Your task to perform on an android device: Go to display settings Image 0: 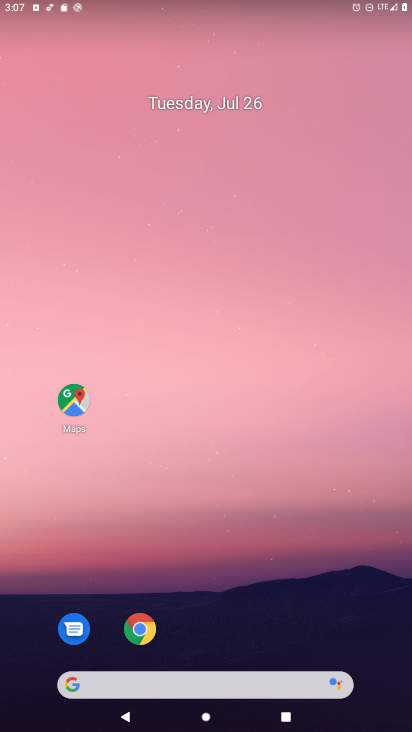
Step 0: drag from (378, 658) to (356, 253)
Your task to perform on an android device: Go to display settings Image 1: 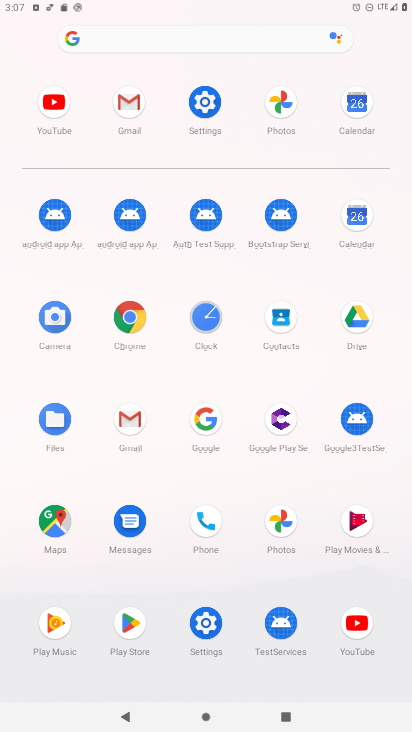
Step 1: click (205, 622)
Your task to perform on an android device: Go to display settings Image 2: 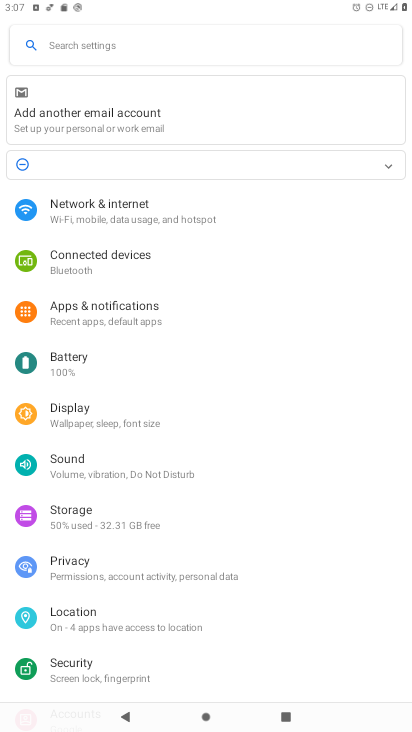
Step 2: click (80, 418)
Your task to perform on an android device: Go to display settings Image 3: 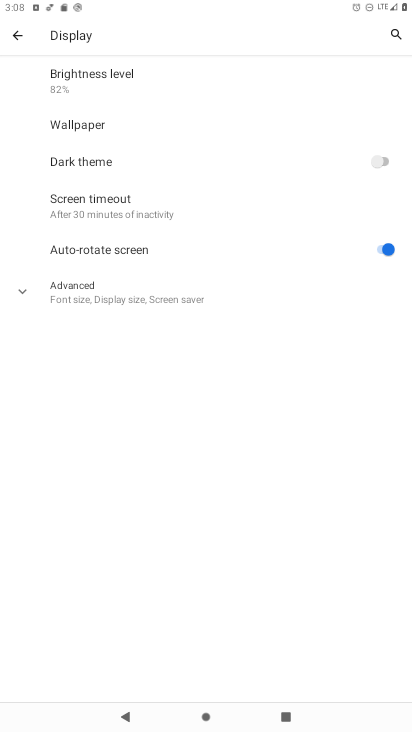
Step 3: task complete